Your task to perform on an android device: check out phone information Image 0: 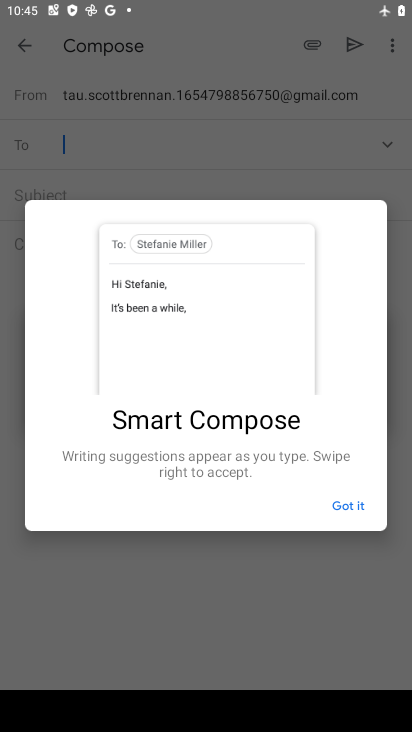
Step 0: press home button
Your task to perform on an android device: check out phone information Image 1: 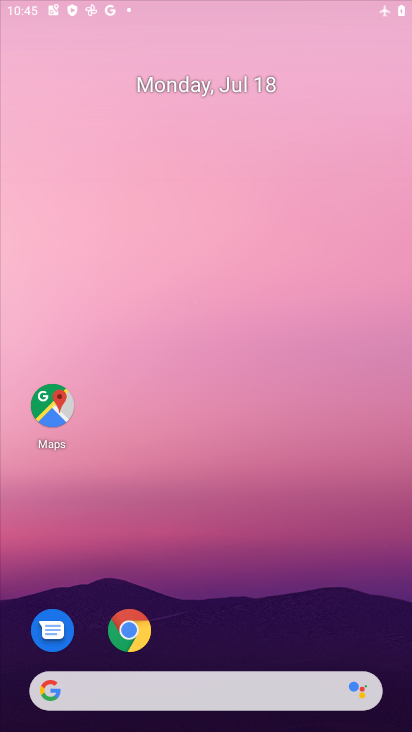
Step 1: drag from (321, 587) to (211, 202)
Your task to perform on an android device: check out phone information Image 2: 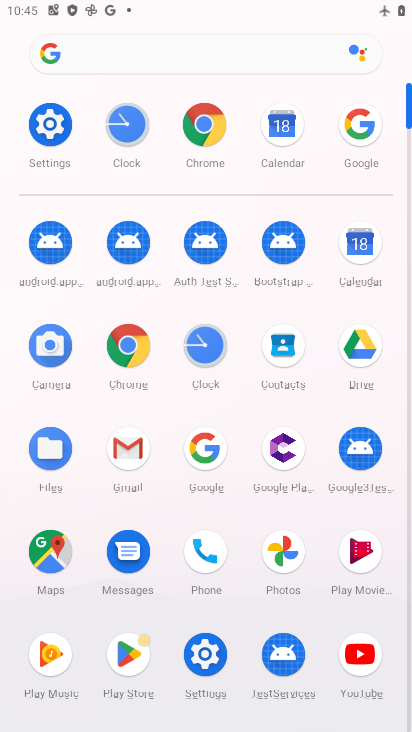
Step 2: click (205, 671)
Your task to perform on an android device: check out phone information Image 3: 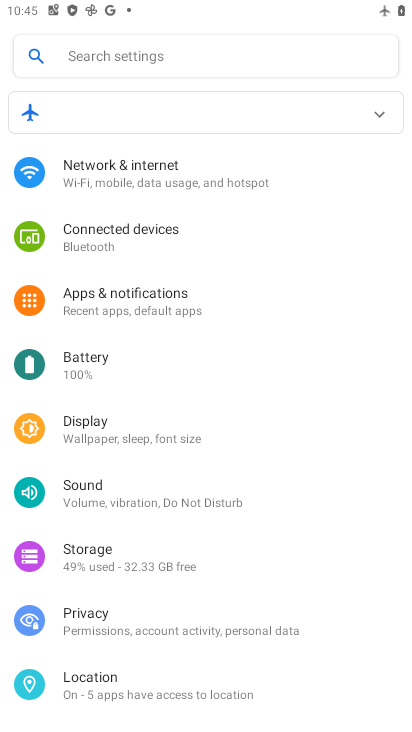
Step 3: task complete